Your task to perform on an android device: Open network settings Image 0: 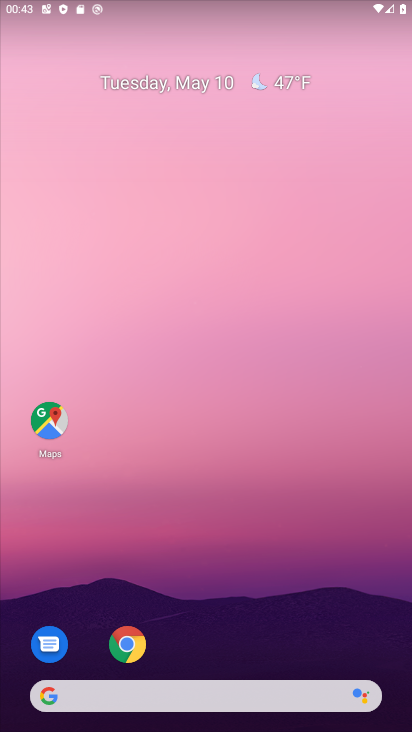
Step 0: drag from (211, 602) to (338, 144)
Your task to perform on an android device: Open network settings Image 1: 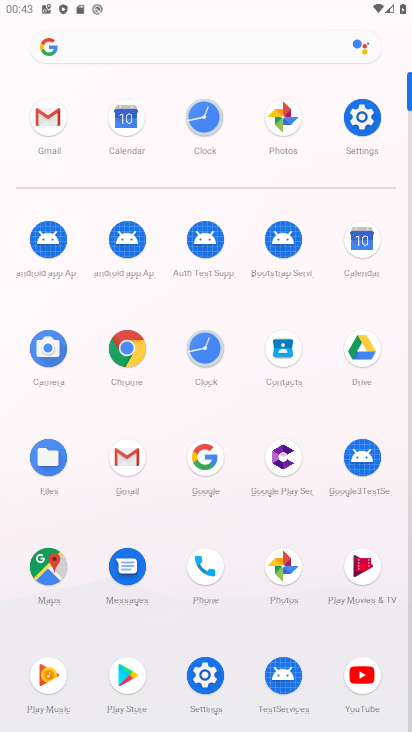
Step 1: click (359, 115)
Your task to perform on an android device: Open network settings Image 2: 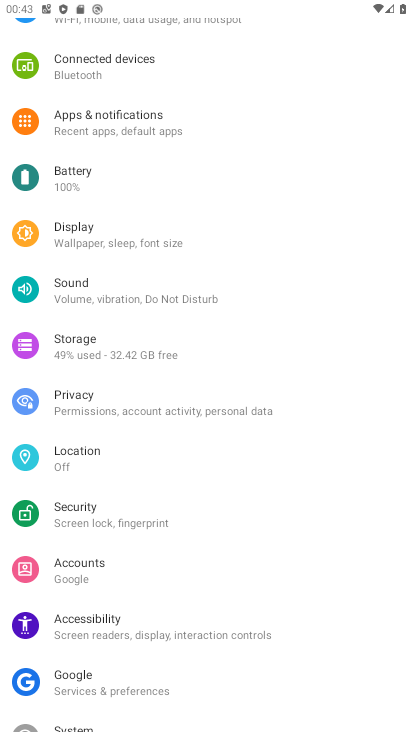
Step 2: drag from (292, 132) to (229, 691)
Your task to perform on an android device: Open network settings Image 3: 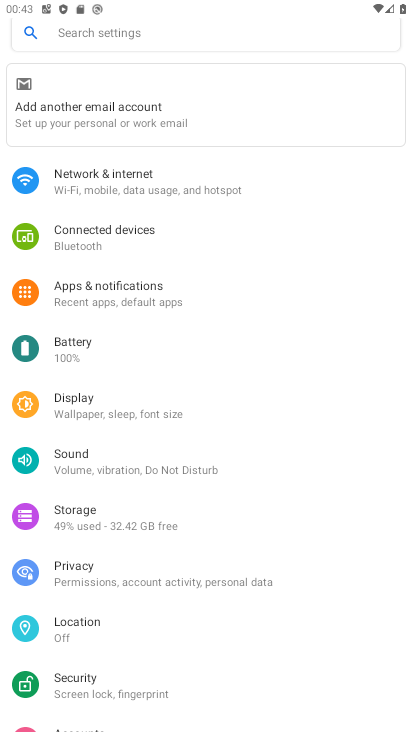
Step 3: click (127, 182)
Your task to perform on an android device: Open network settings Image 4: 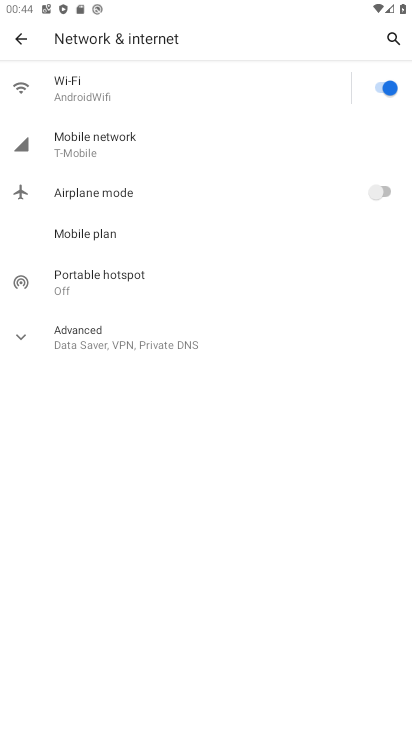
Step 4: task complete